Your task to perform on an android device: toggle sleep mode Image 0: 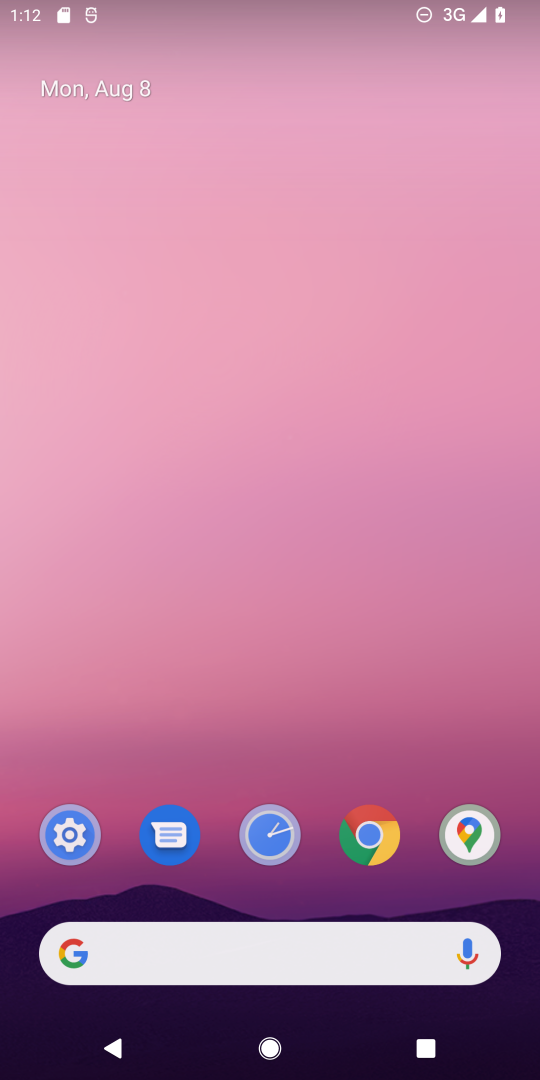
Step 0: press home button
Your task to perform on an android device: toggle sleep mode Image 1: 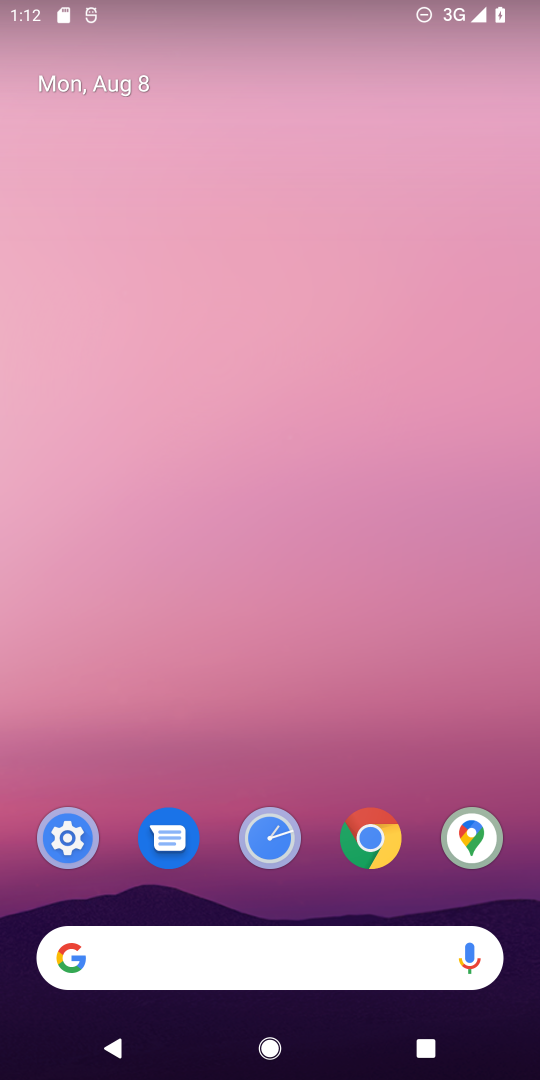
Step 1: click (59, 843)
Your task to perform on an android device: toggle sleep mode Image 2: 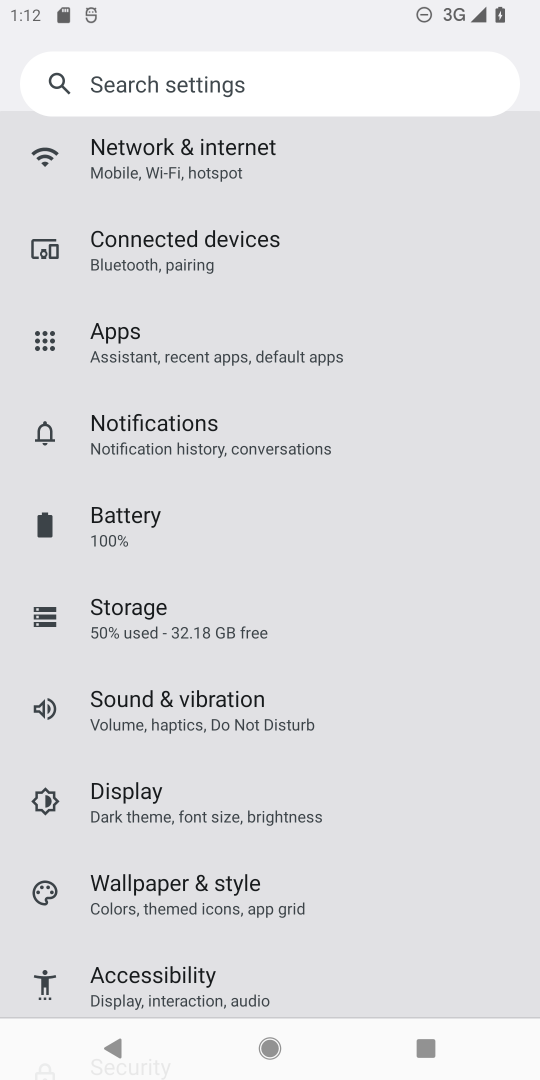
Step 2: click (133, 807)
Your task to perform on an android device: toggle sleep mode Image 3: 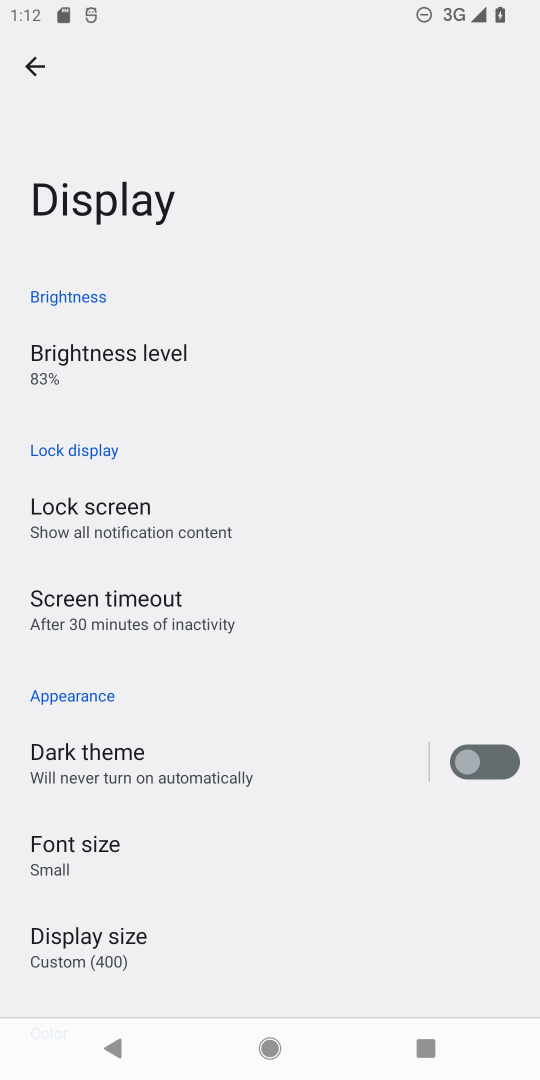
Step 3: task complete